Your task to perform on an android device: Open the phone app and click the voicemail tab. Image 0: 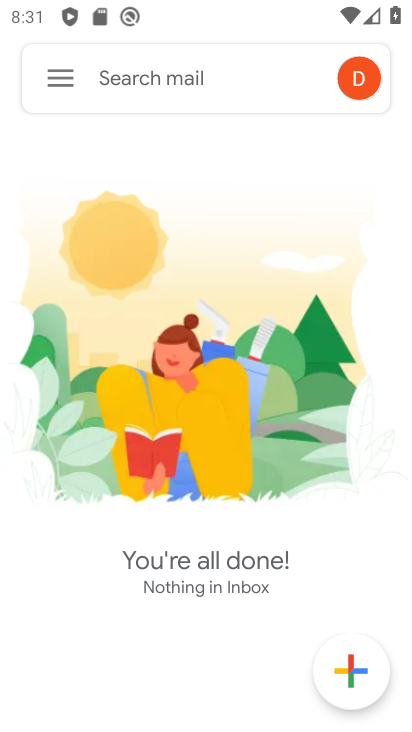
Step 0: press home button
Your task to perform on an android device: Open the phone app and click the voicemail tab. Image 1: 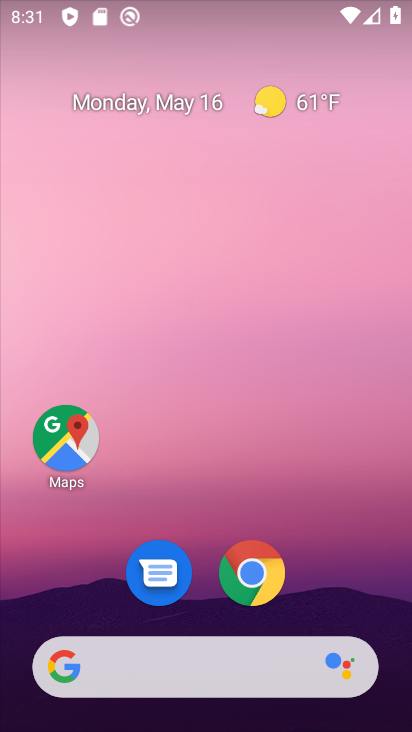
Step 1: drag from (224, 715) to (237, 159)
Your task to perform on an android device: Open the phone app and click the voicemail tab. Image 2: 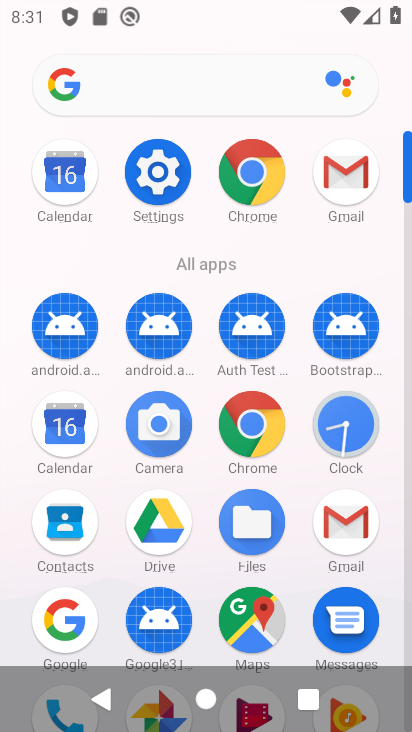
Step 2: drag from (282, 602) to (282, 243)
Your task to perform on an android device: Open the phone app and click the voicemail tab. Image 3: 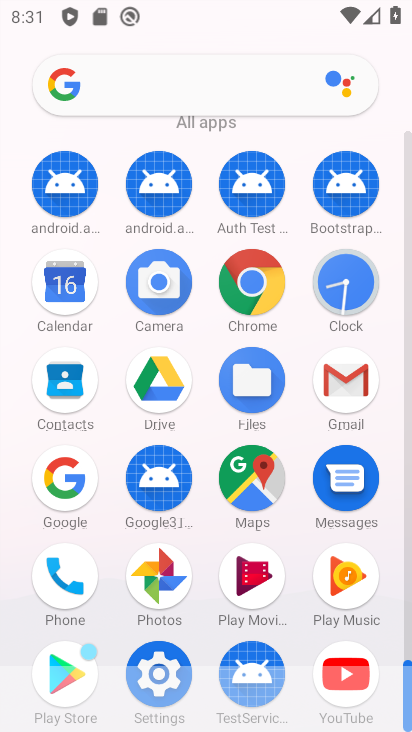
Step 3: click (62, 572)
Your task to perform on an android device: Open the phone app and click the voicemail tab. Image 4: 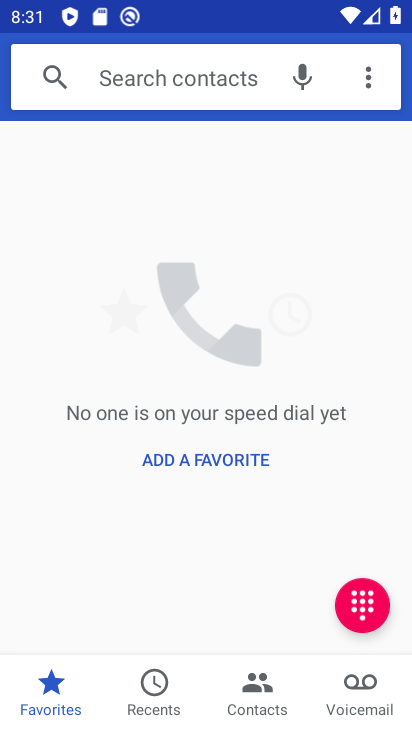
Step 4: click (355, 691)
Your task to perform on an android device: Open the phone app and click the voicemail tab. Image 5: 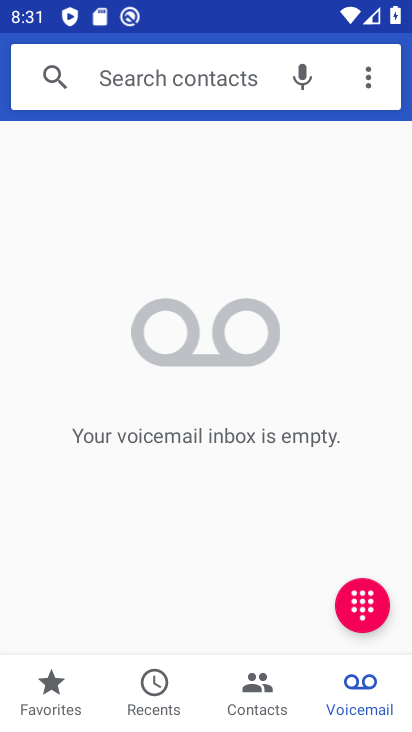
Step 5: task complete